Your task to perform on an android device: Is it going to rain this weekend? Image 0: 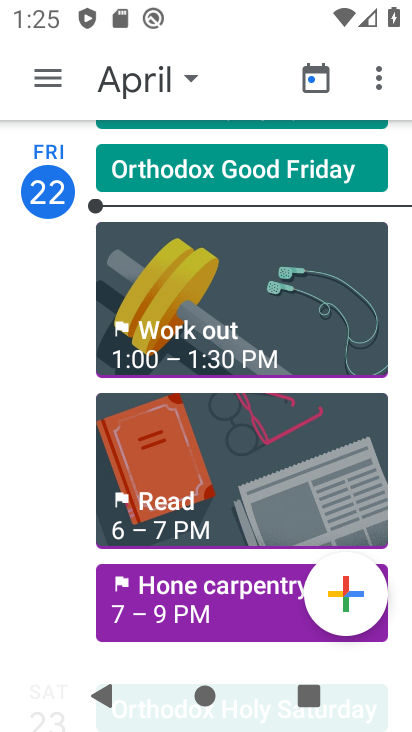
Step 0: press home button
Your task to perform on an android device: Is it going to rain this weekend? Image 1: 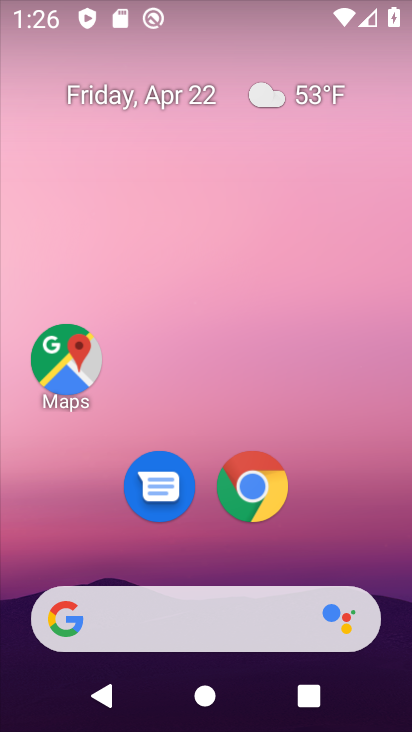
Step 1: click (330, 98)
Your task to perform on an android device: Is it going to rain this weekend? Image 2: 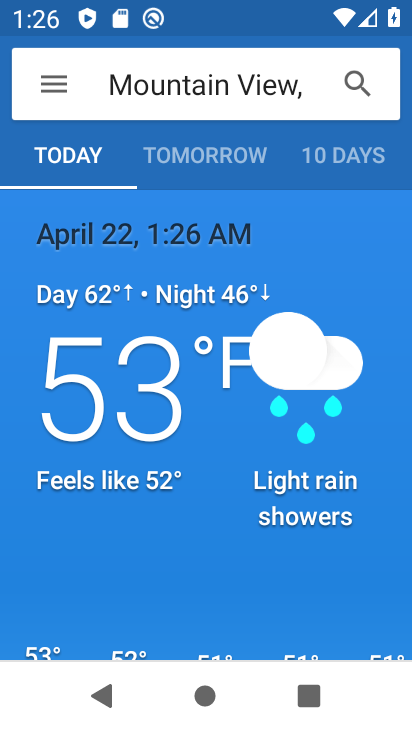
Step 2: click (327, 178)
Your task to perform on an android device: Is it going to rain this weekend? Image 3: 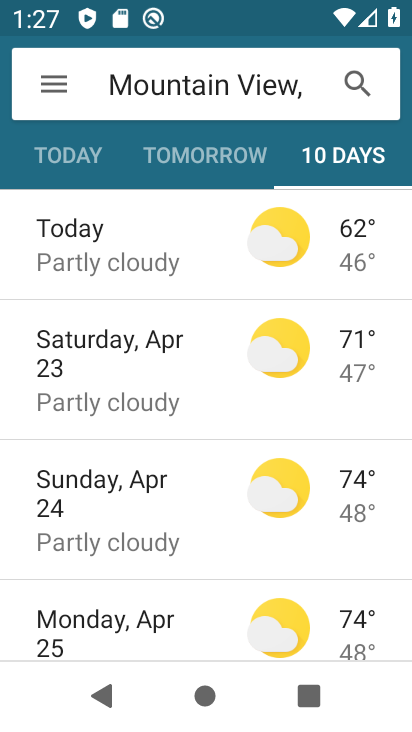
Step 3: click (127, 387)
Your task to perform on an android device: Is it going to rain this weekend? Image 4: 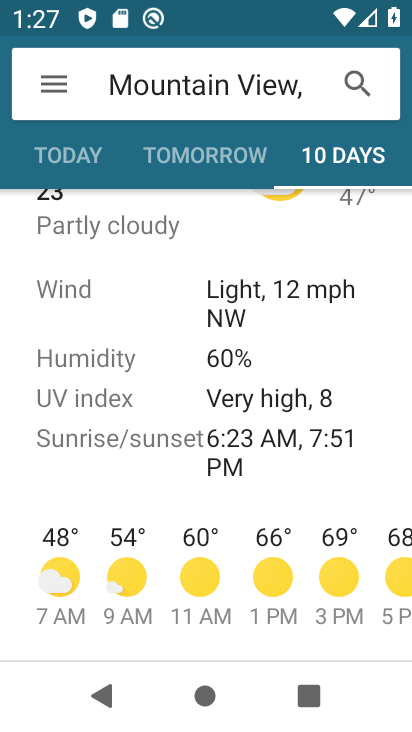
Step 4: task complete